Your task to perform on an android device: star an email in the gmail app Image 0: 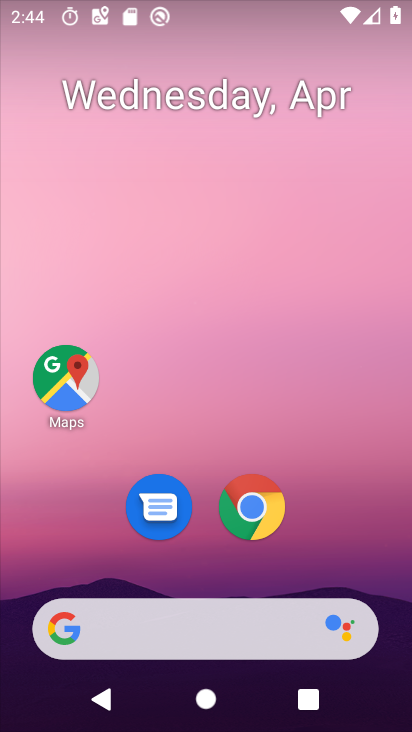
Step 0: drag from (274, 426) to (84, 65)
Your task to perform on an android device: star an email in the gmail app Image 1: 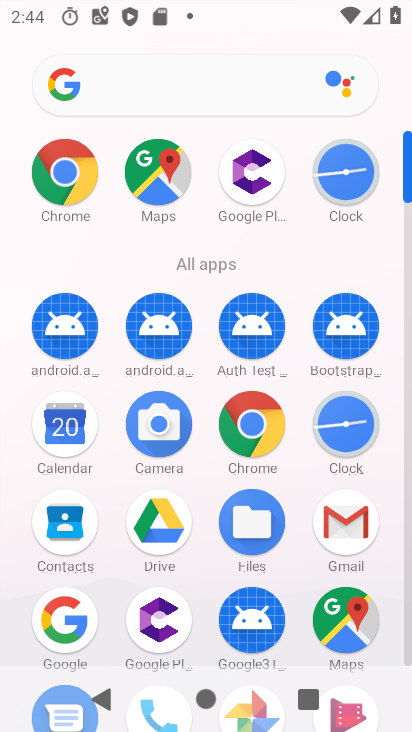
Step 1: click (336, 523)
Your task to perform on an android device: star an email in the gmail app Image 2: 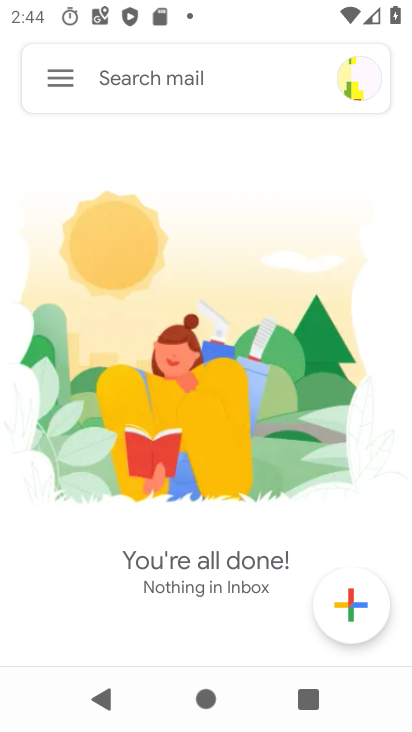
Step 2: click (57, 79)
Your task to perform on an android device: star an email in the gmail app Image 3: 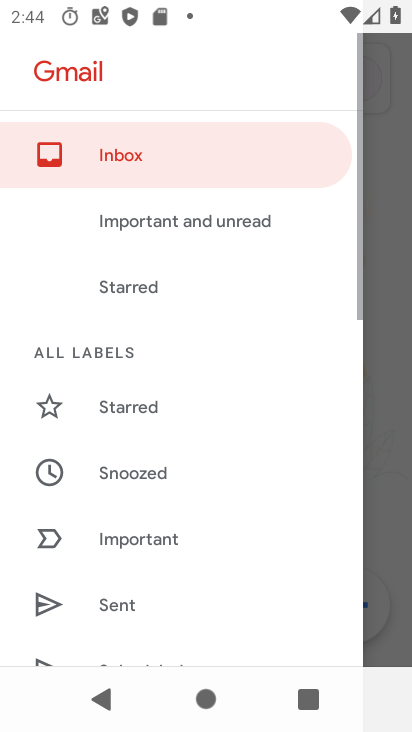
Step 3: drag from (212, 567) to (191, 226)
Your task to perform on an android device: star an email in the gmail app Image 4: 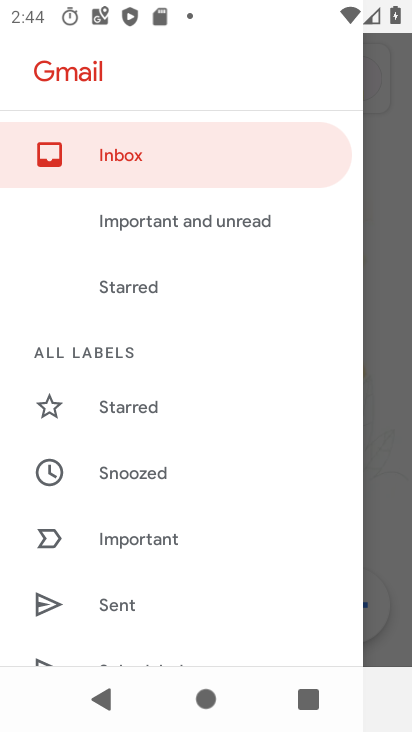
Step 4: click (376, 164)
Your task to perform on an android device: star an email in the gmail app Image 5: 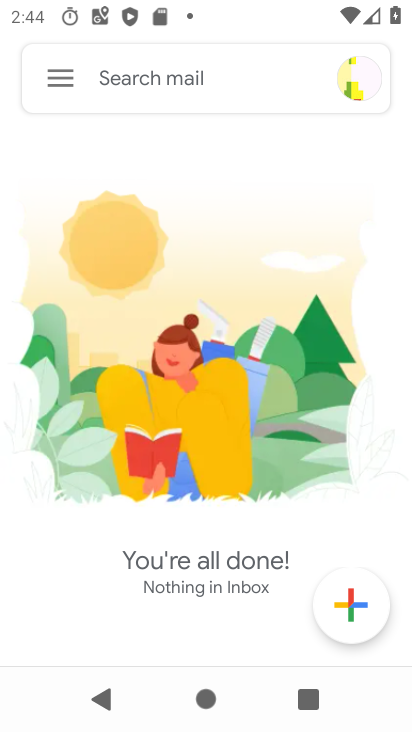
Step 5: task complete